Your task to perform on an android device: Go to privacy settings Image 0: 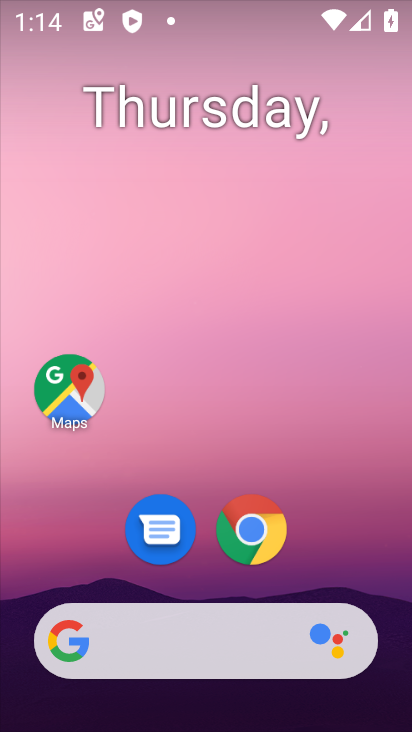
Step 0: drag from (341, 577) to (342, 144)
Your task to perform on an android device: Go to privacy settings Image 1: 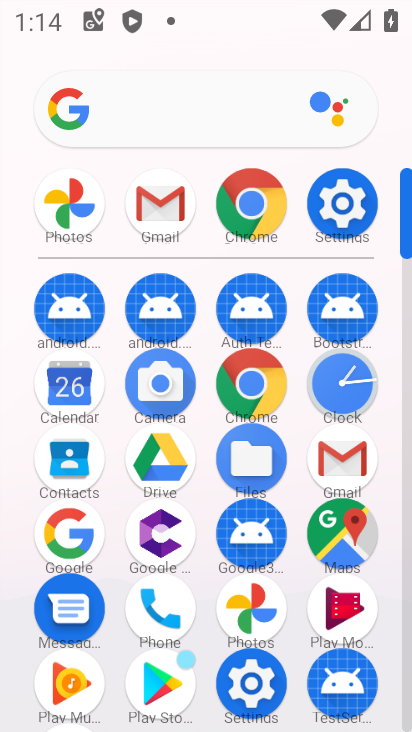
Step 1: click (260, 695)
Your task to perform on an android device: Go to privacy settings Image 2: 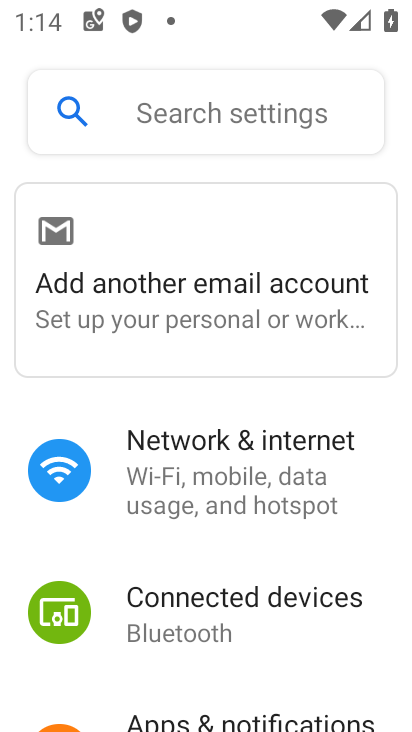
Step 2: drag from (286, 695) to (317, 396)
Your task to perform on an android device: Go to privacy settings Image 3: 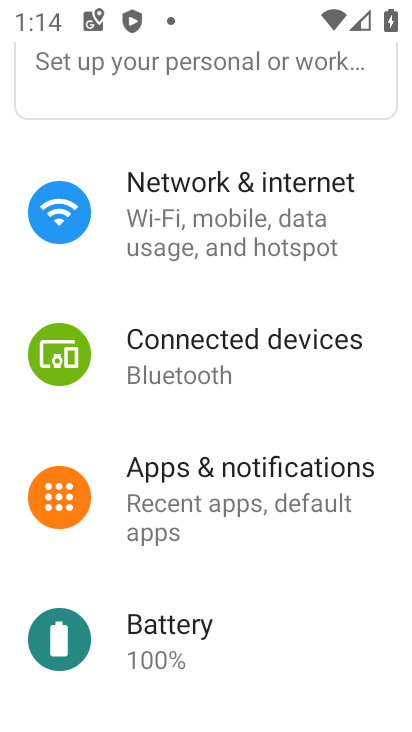
Step 3: drag from (290, 669) to (295, 373)
Your task to perform on an android device: Go to privacy settings Image 4: 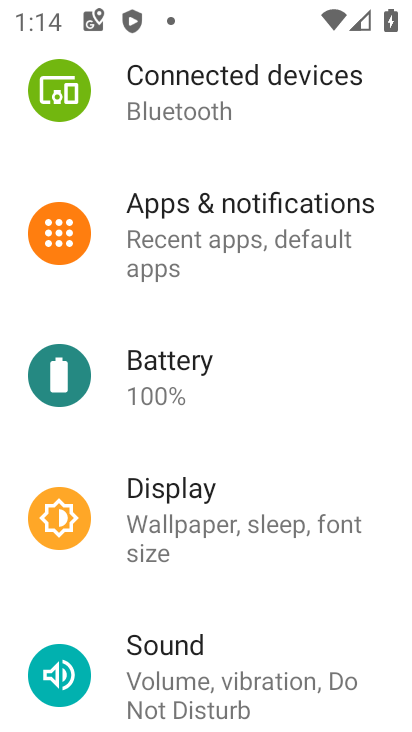
Step 4: drag from (295, 597) to (304, 352)
Your task to perform on an android device: Go to privacy settings Image 5: 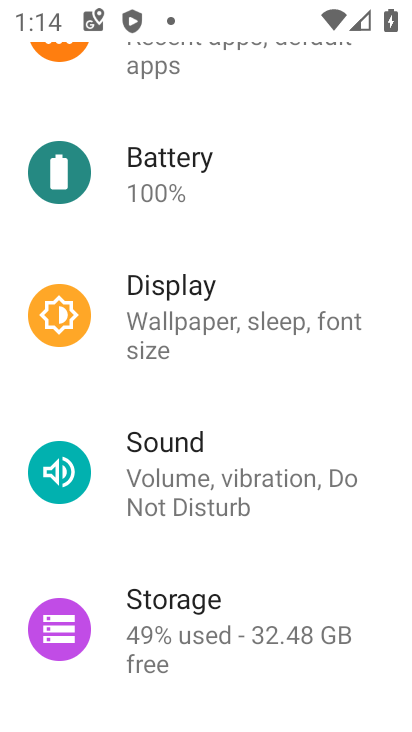
Step 5: drag from (232, 221) to (283, 333)
Your task to perform on an android device: Go to privacy settings Image 6: 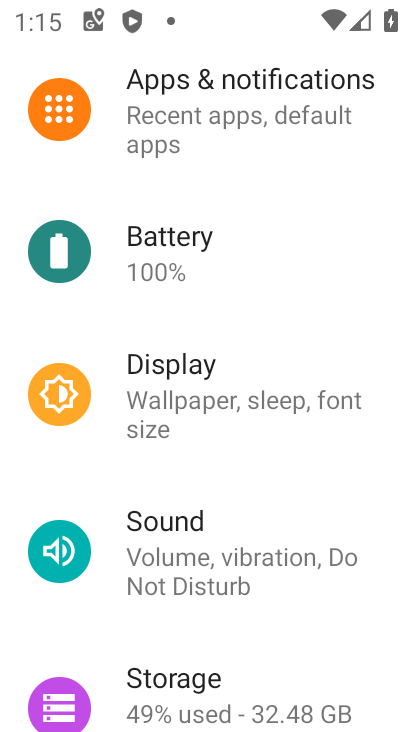
Step 6: drag from (265, 634) to (305, 231)
Your task to perform on an android device: Go to privacy settings Image 7: 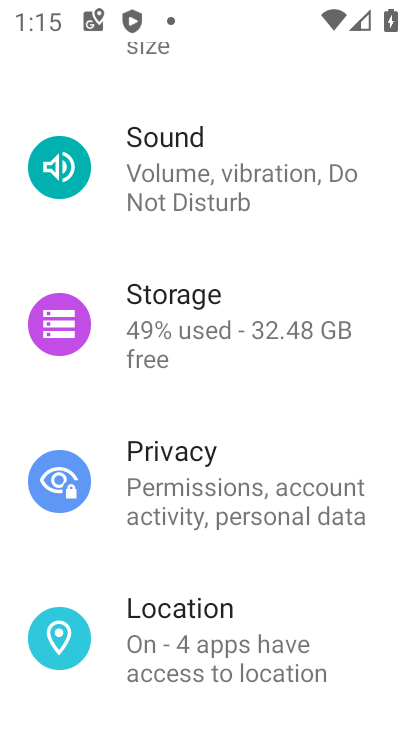
Step 7: drag from (275, 557) to (301, 209)
Your task to perform on an android device: Go to privacy settings Image 8: 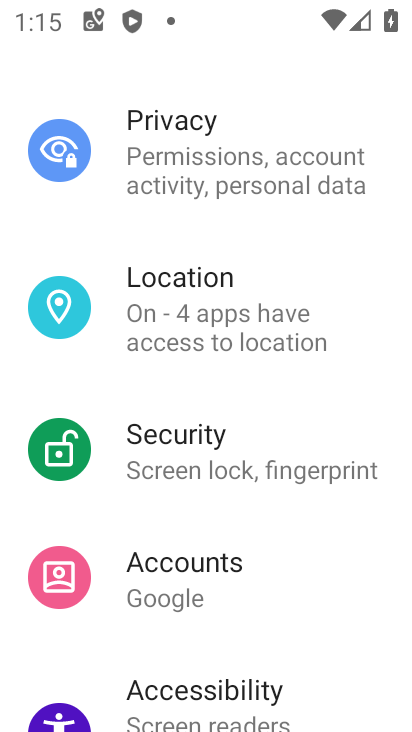
Step 8: drag from (260, 496) to (275, 195)
Your task to perform on an android device: Go to privacy settings Image 9: 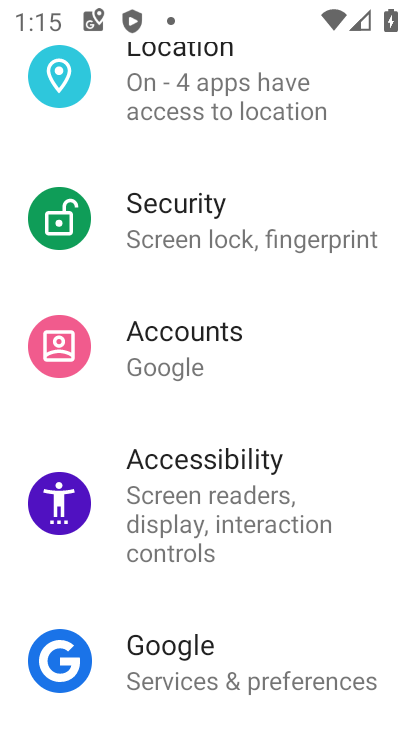
Step 9: drag from (278, 545) to (286, 172)
Your task to perform on an android device: Go to privacy settings Image 10: 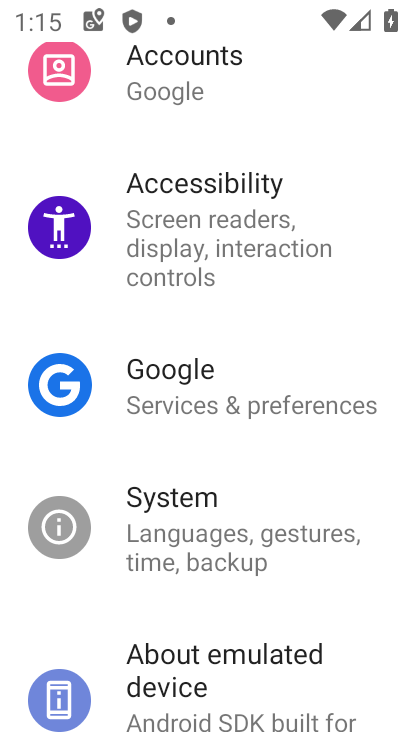
Step 10: drag from (286, 536) to (306, 164)
Your task to perform on an android device: Go to privacy settings Image 11: 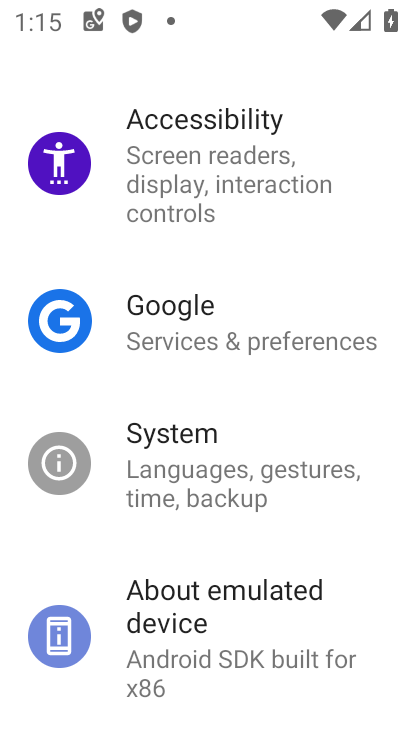
Step 11: drag from (238, 76) to (271, 637)
Your task to perform on an android device: Go to privacy settings Image 12: 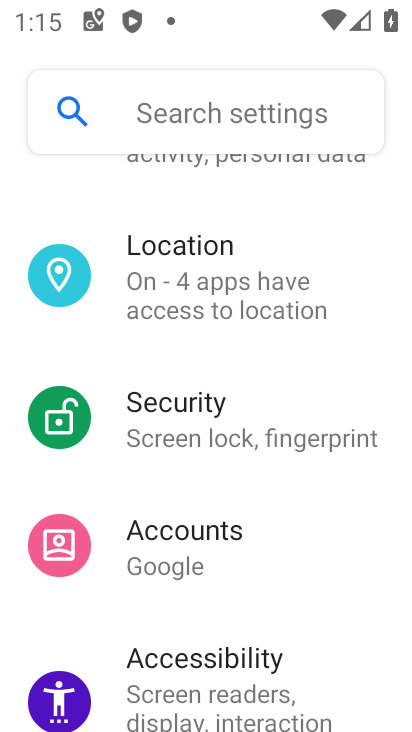
Step 12: drag from (235, 213) to (258, 719)
Your task to perform on an android device: Go to privacy settings Image 13: 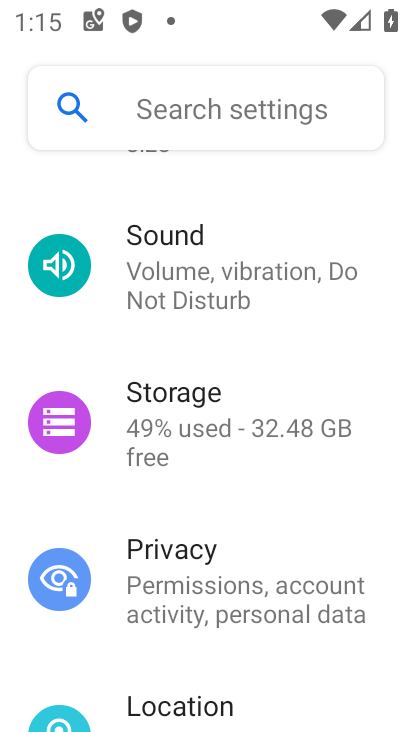
Step 13: drag from (214, 292) to (331, 468)
Your task to perform on an android device: Go to privacy settings Image 14: 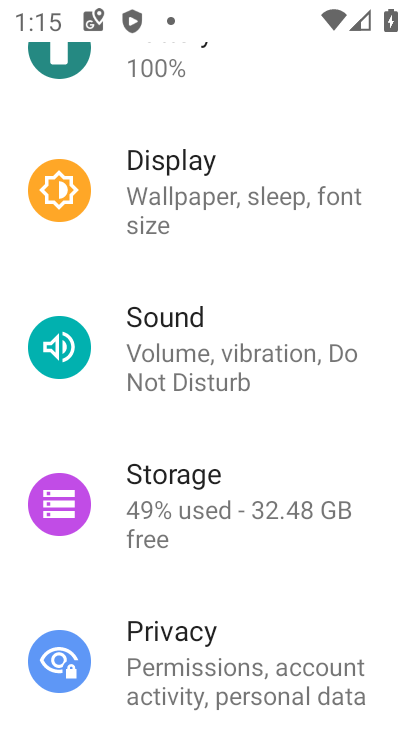
Step 14: click (215, 662)
Your task to perform on an android device: Go to privacy settings Image 15: 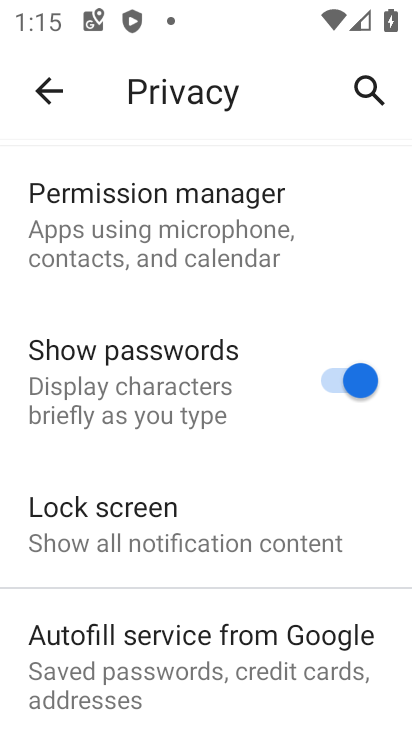
Step 15: task complete